Your task to perform on an android device: turn off wifi Image 0: 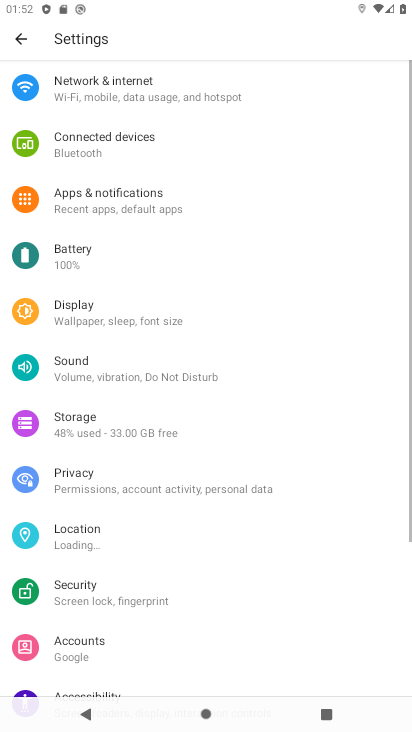
Step 0: drag from (270, 561) to (285, 271)
Your task to perform on an android device: turn off wifi Image 1: 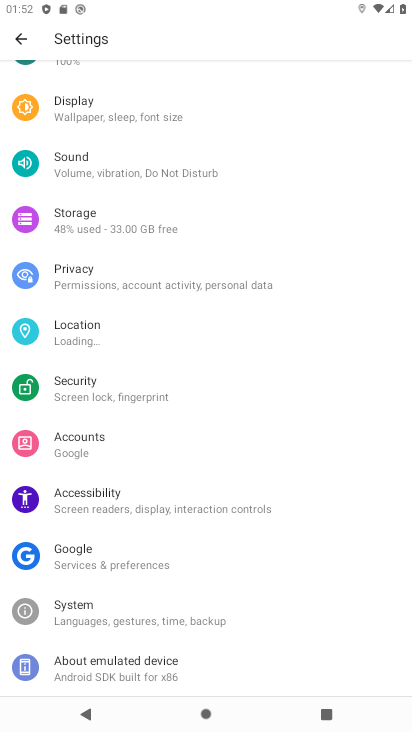
Step 1: drag from (188, 169) to (210, 531)
Your task to perform on an android device: turn off wifi Image 2: 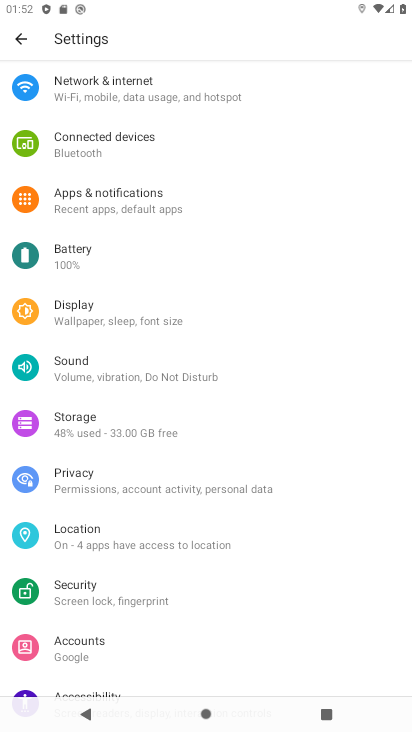
Step 2: click (98, 98)
Your task to perform on an android device: turn off wifi Image 3: 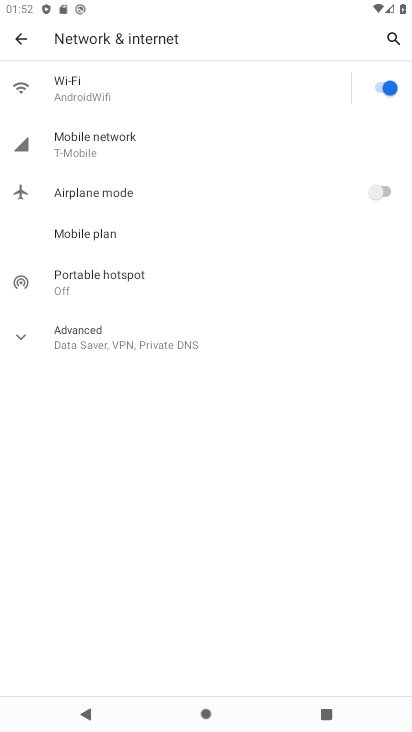
Step 3: click (378, 79)
Your task to perform on an android device: turn off wifi Image 4: 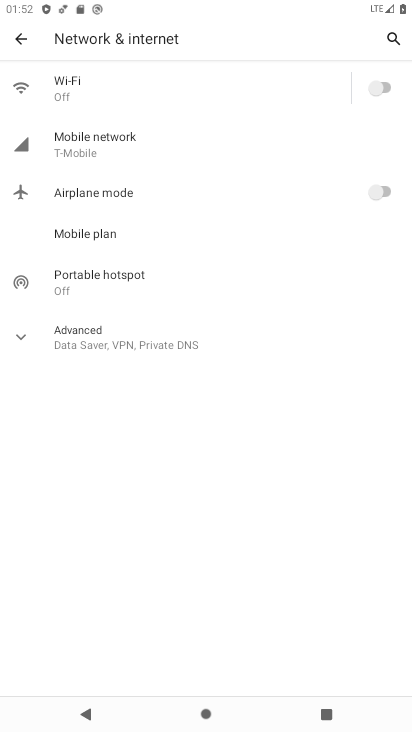
Step 4: task complete